Your task to perform on an android device: turn off notifications settings in the gmail app Image 0: 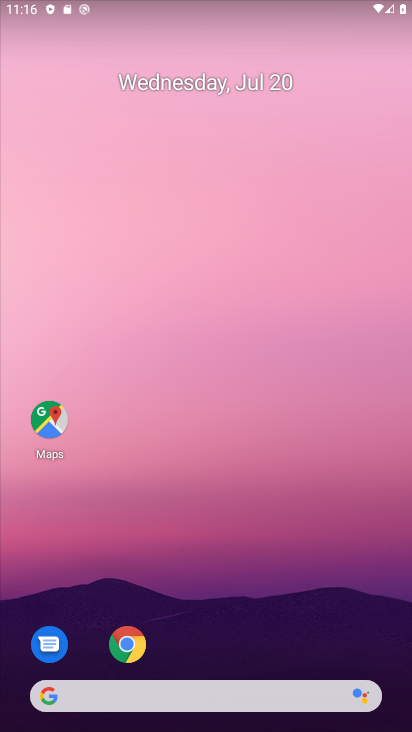
Step 0: drag from (152, 703) to (279, 8)
Your task to perform on an android device: turn off notifications settings in the gmail app Image 1: 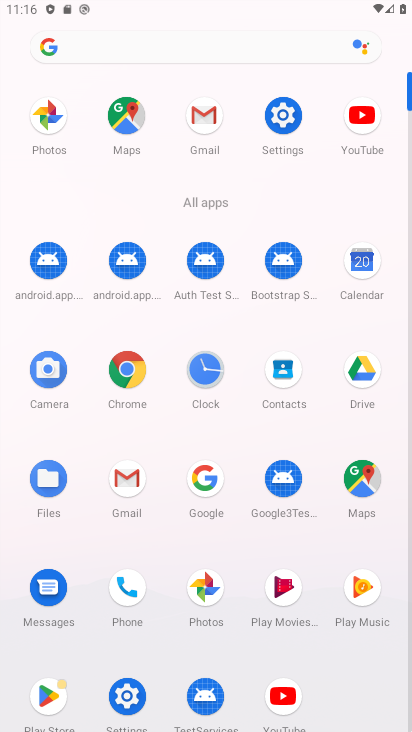
Step 1: click (200, 112)
Your task to perform on an android device: turn off notifications settings in the gmail app Image 2: 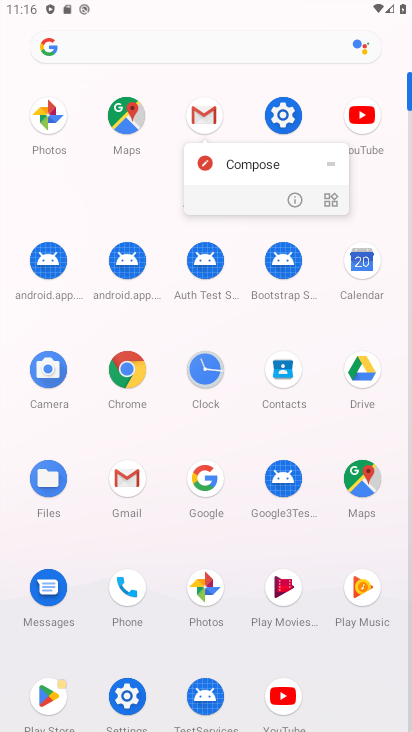
Step 2: click (290, 199)
Your task to perform on an android device: turn off notifications settings in the gmail app Image 3: 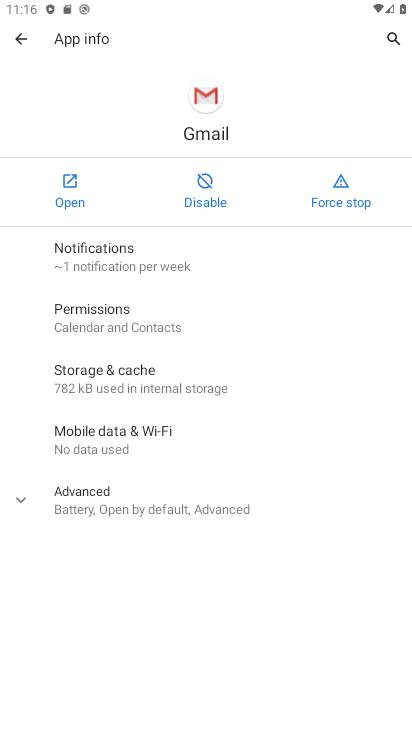
Step 3: click (199, 260)
Your task to perform on an android device: turn off notifications settings in the gmail app Image 4: 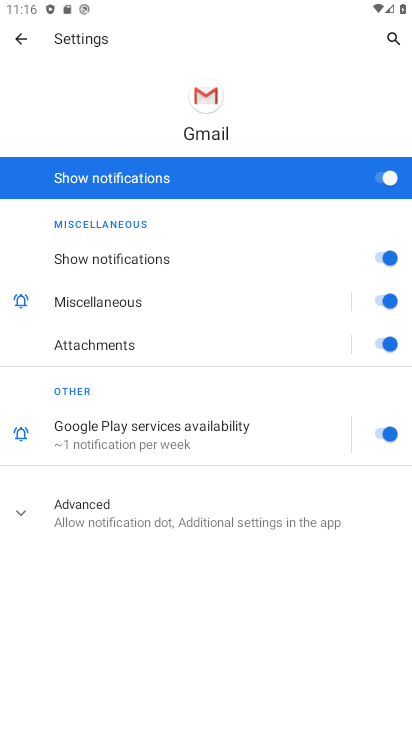
Step 4: click (384, 177)
Your task to perform on an android device: turn off notifications settings in the gmail app Image 5: 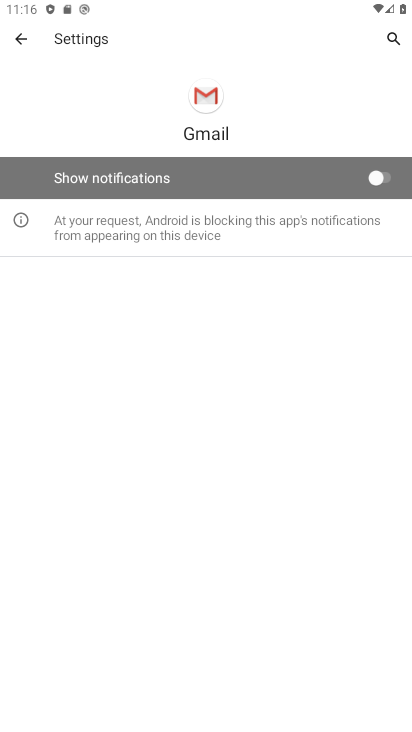
Step 5: task complete